Your task to perform on an android device: read, delete, or share a saved page in the chrome app Image 0: 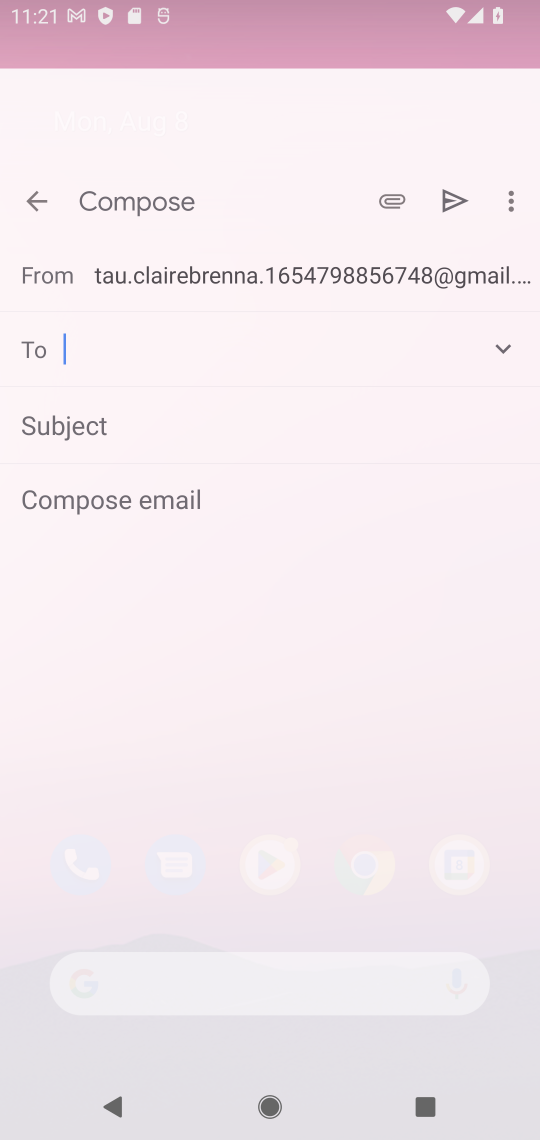
Step 0: click (490, 363)
Your task to perform on an android device: read, delete, or share a saved page in the chrome app Image 1: 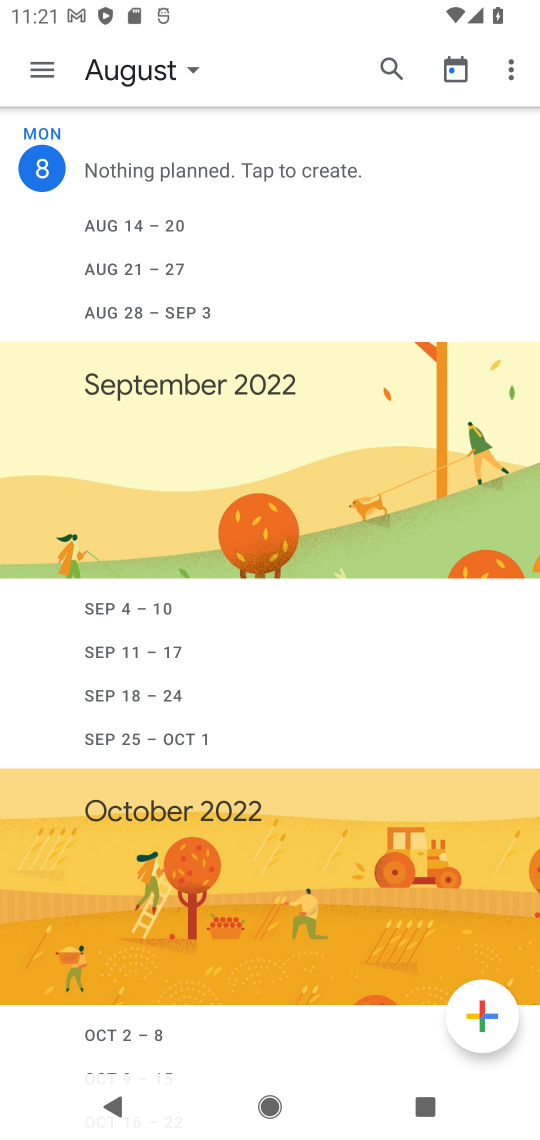
Step 1: press home button
Your task to perform on an android device: read, delete, or share a saved page in the chrome app Image 2: 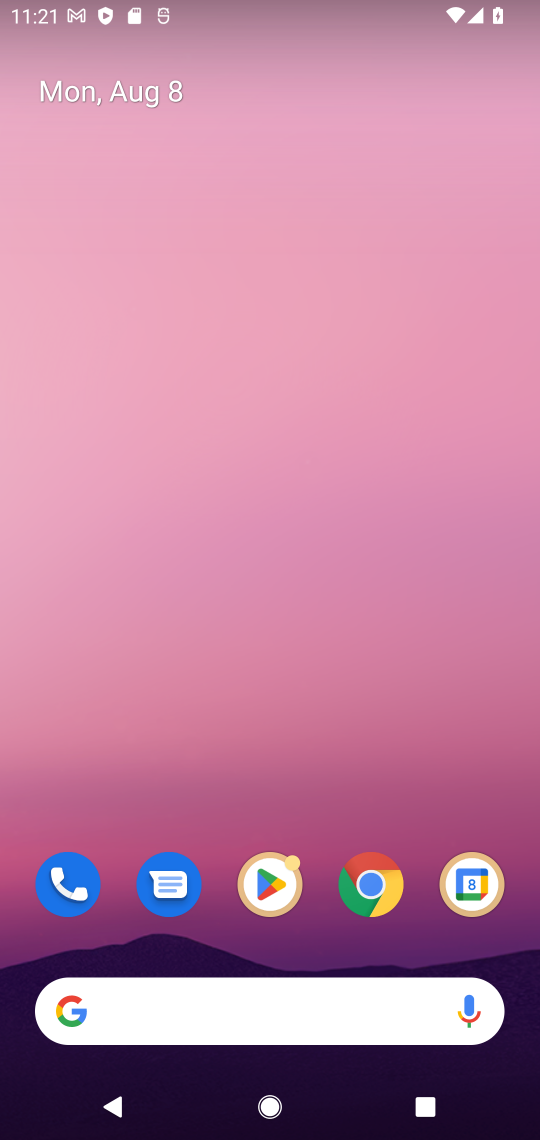
Step 2: click (364, 905)
Your task to perform on an android device: read, delete, or share a saved page in the chrome app Image 3: 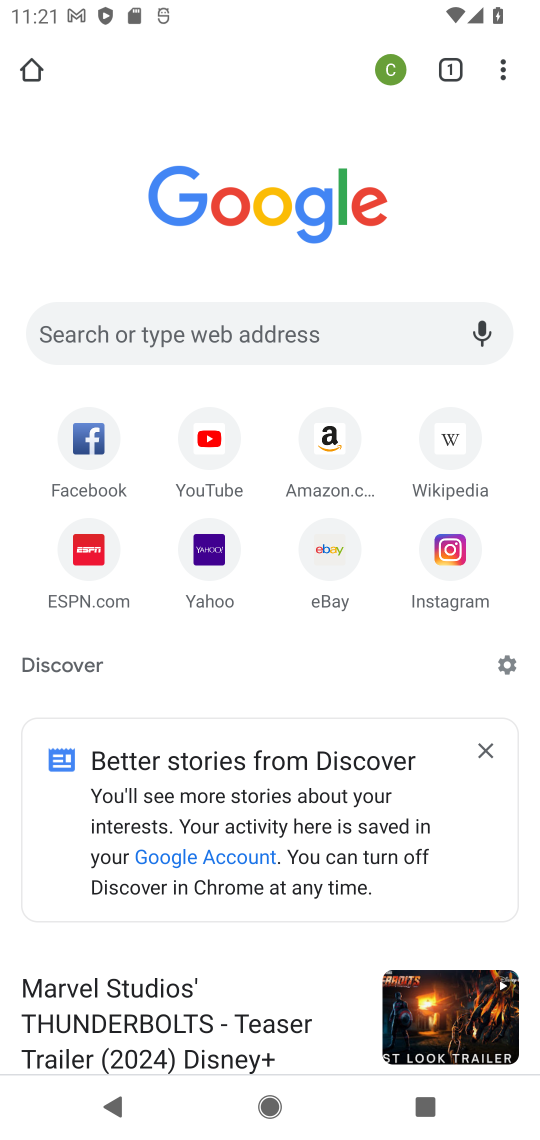
Step 3: click (499, 61)
Your task to perform on an android device: read, delete, or share a saved page in the chrome app Image 4: 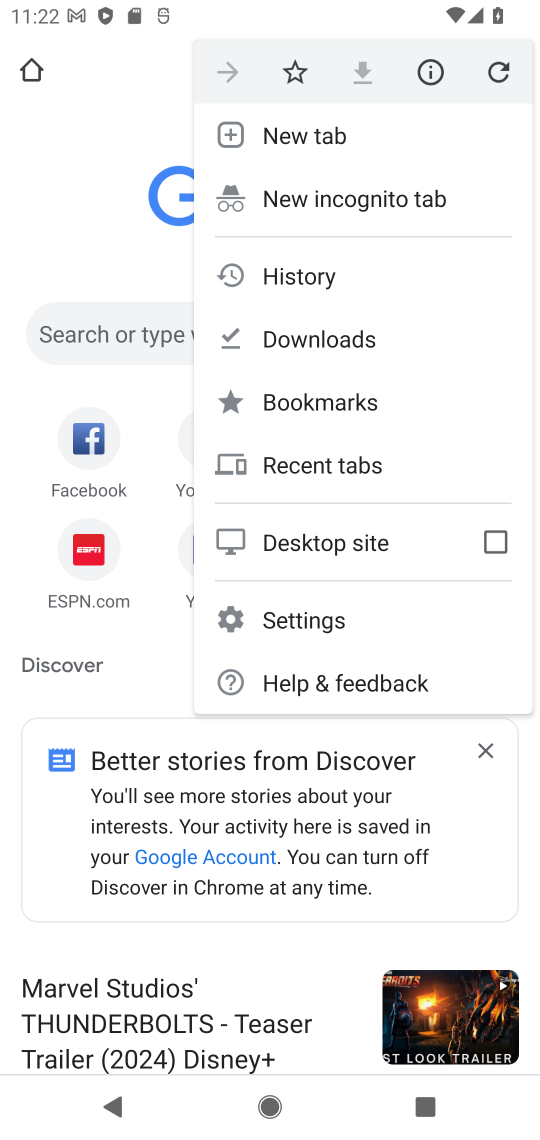
Step 4: click (339, 343)
Your task to perform on an android device: read, delete, or share a saved page in the chrome app Image 5: 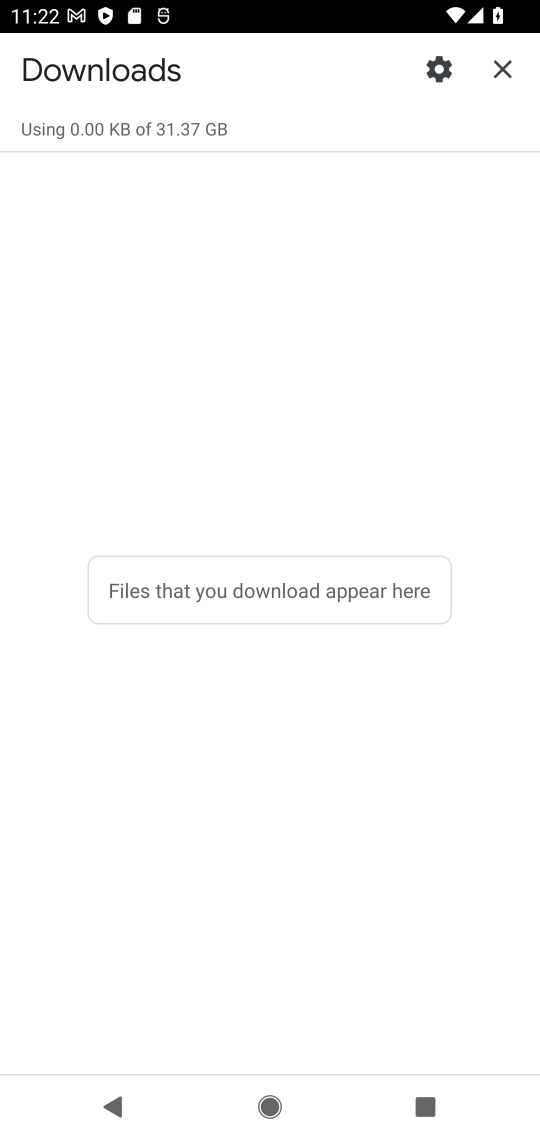
Step 5: task complete